Your task to perform on an android device: open wifi settings Image 0: 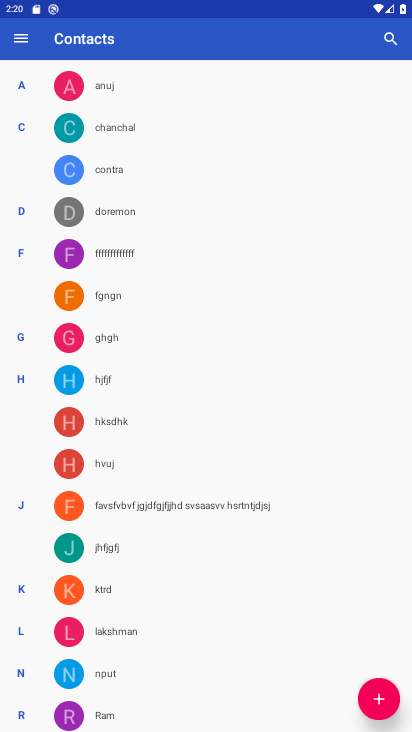
Step 0: press home button
Your task to perform on an android device: open wifi settings Image 1: 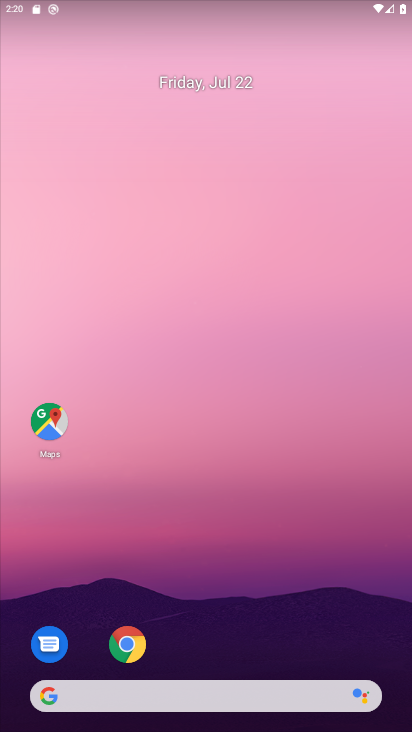
Step 1: drag from (193, 634) to (201, 323)
Your task to perform on an android device: open wifi settings Image 2: 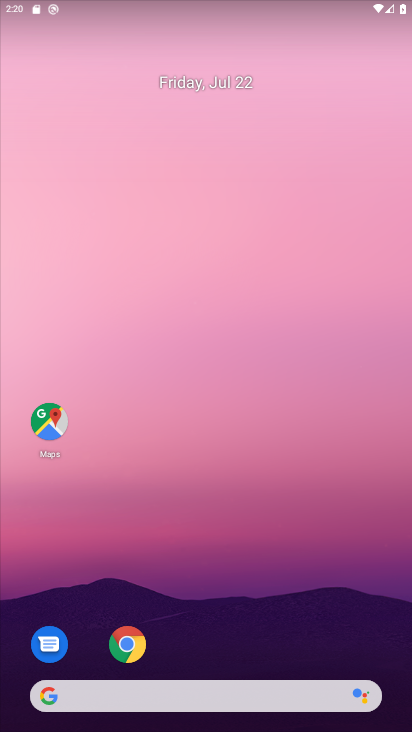
Step 2: drag from (237, 683) to (243, 65)
Your task to perform on an android device: open wifi settings Image 3: 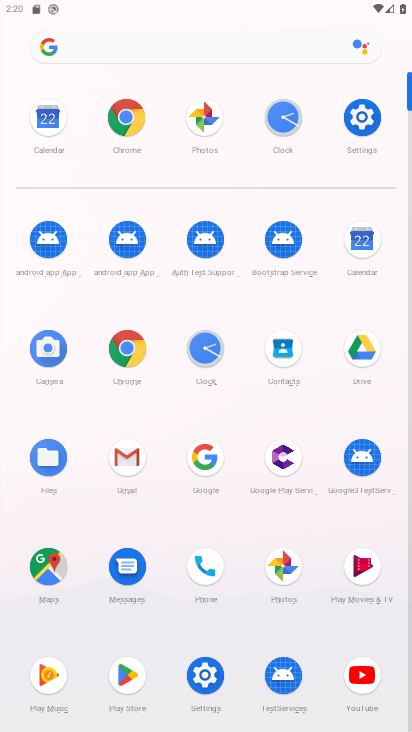
Step 3: click (362, 117)
Your task to perform on an android device: open wifi settings Image 4: 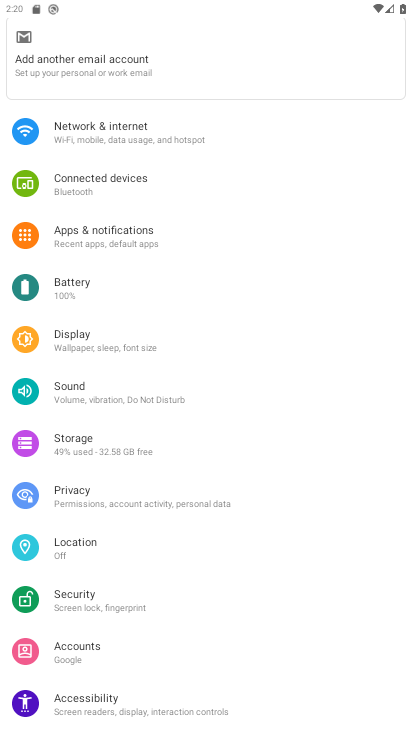
Step 4: click (151, 132)
Your task to perform on an android device: open wifi settings Image 5: 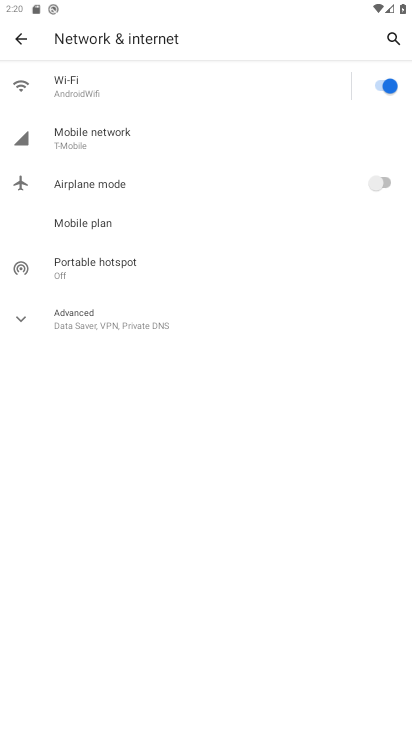
Step 5: click (107, 83)
Your task to perform on an android device: open wifi settings Image 6: 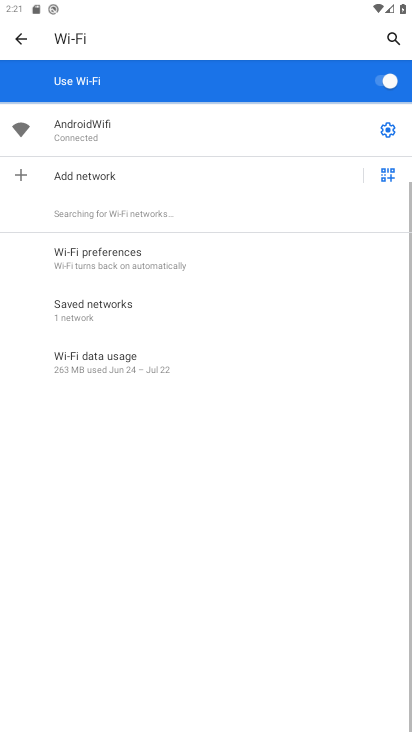
Step 6: task complete